Your task to perform on an android device: turn off location Image 0: 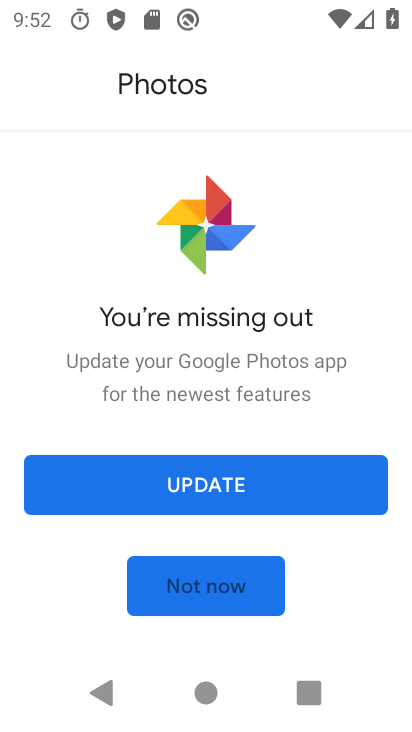
Step 0: click (172, 589)
Your task to perform on an android device: turn off location Image 1: 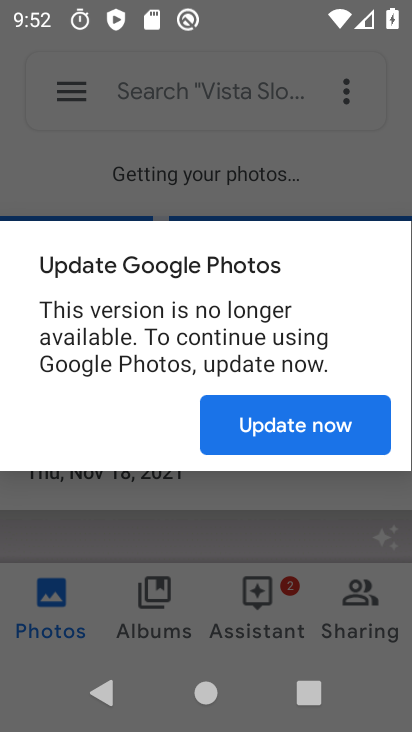
Step 1: click (266, 418)
Your task to perform on an android device: turn off location Image 2: 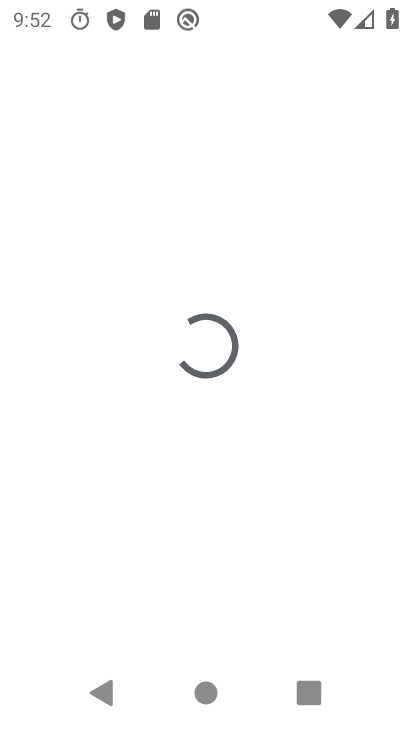
Step 2: press back button
Your task to perform on an android device: turn off location Image 3: 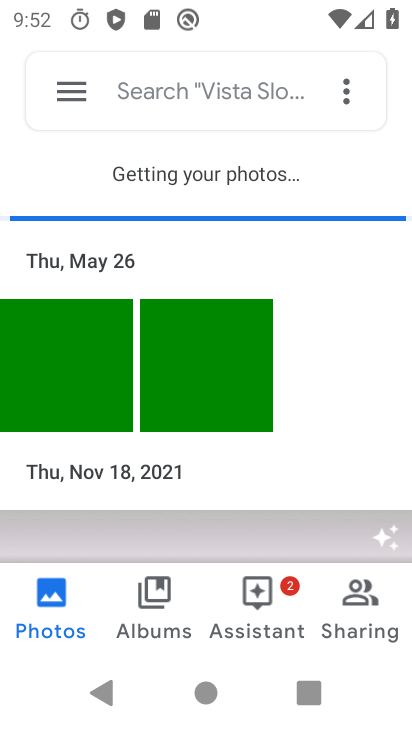
Step 3: press home button
Your task to perform on an android device: turn off location Image 4: 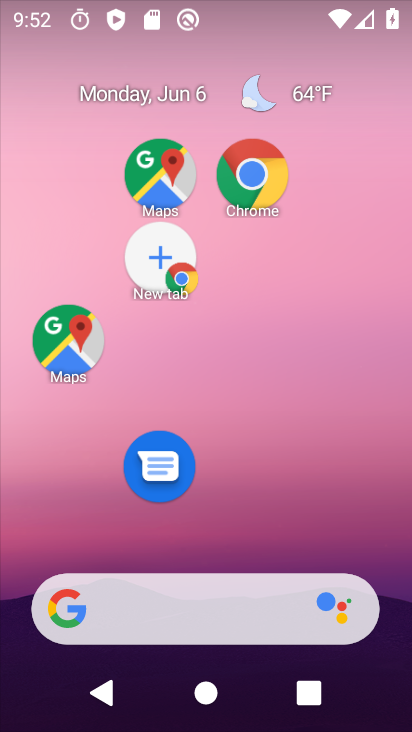
Step 4: drag from (251, 698) to (245, 172)
Your task to perform on an android device: turn off location Image 5: 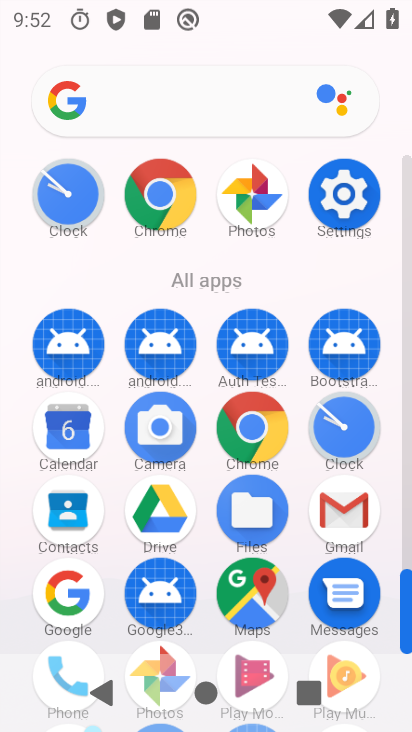
Step 5: click (341, 189)
Your task to perform on an android device: turn off location Image 6: 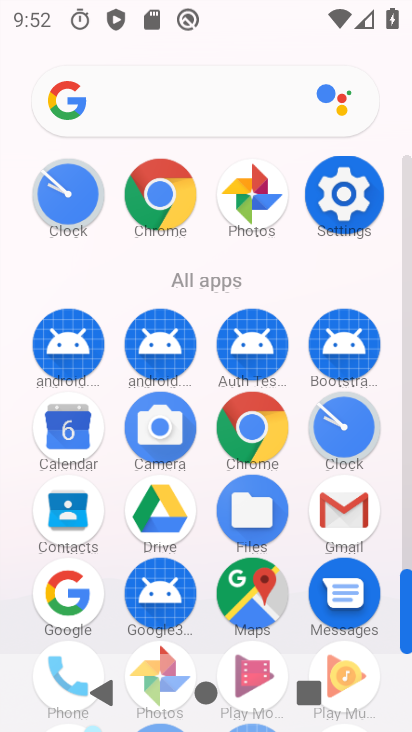
Step 6: click (343, 189)
Your task to perform on an android device: turn off location Image 7: 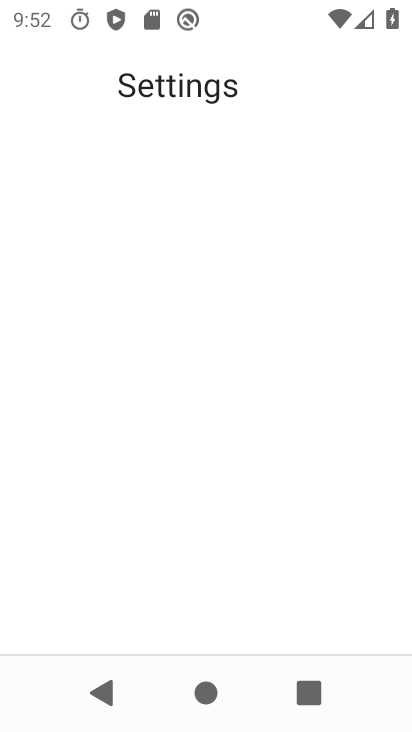
Step 7: click (345, 190)
Your task to perform on an android device: turn off location Image 8: 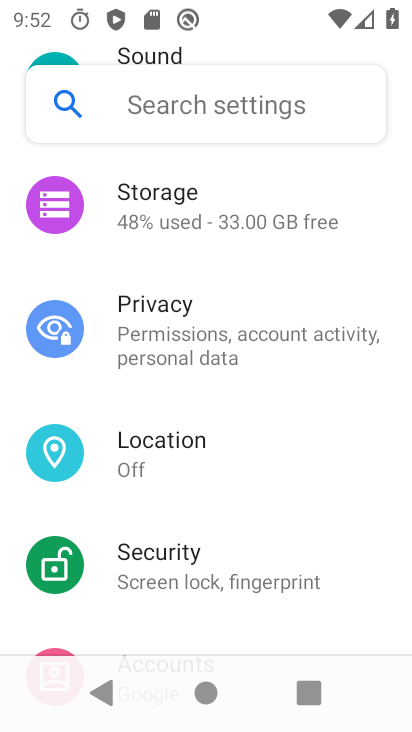
Step 8: click (163, 462)
Your task to perform on an android device: turn off location Image 9: 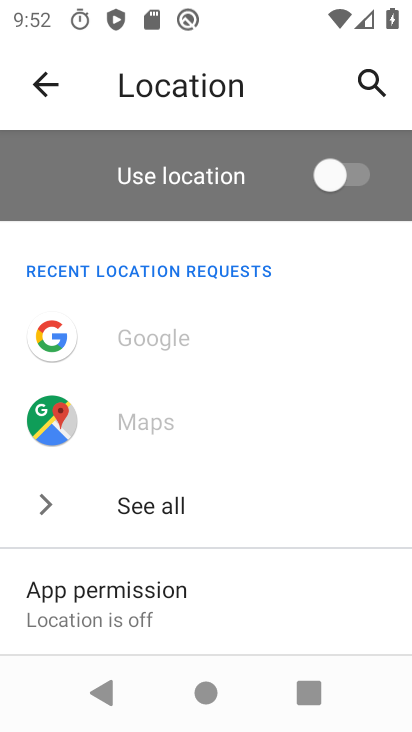
Step 9: task complete